Your task to perform on an android device: refresh tabs in the chrome app Image 0: 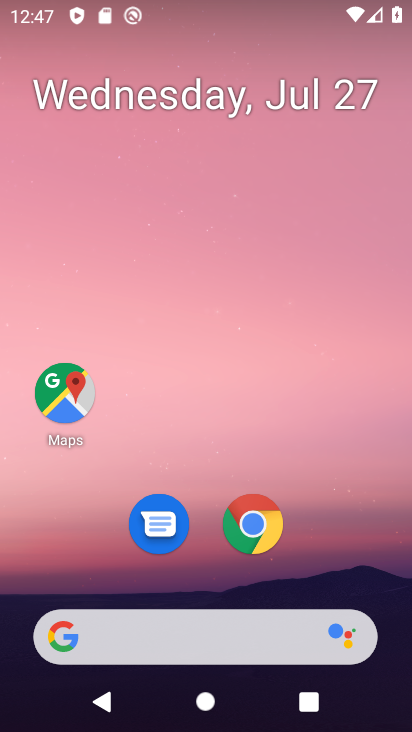
Step 0: click (258, 534)
Your task to perform on an android device: refresh tabs in the chrome app Image 1: 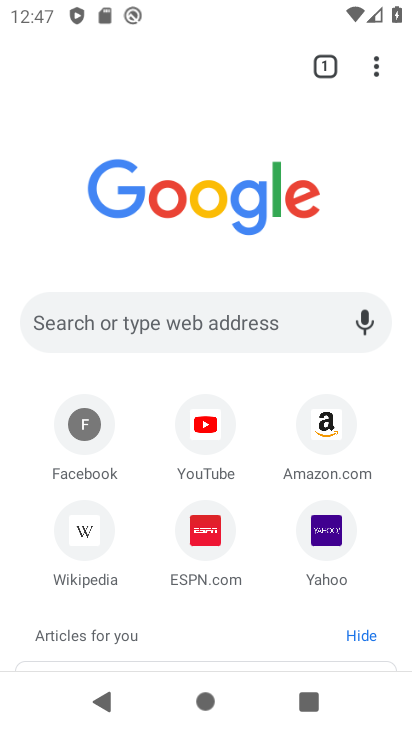
Step 1: click (374, 72)
Your task to perform on an android device: refresh tabs in the chrome app Image 2: 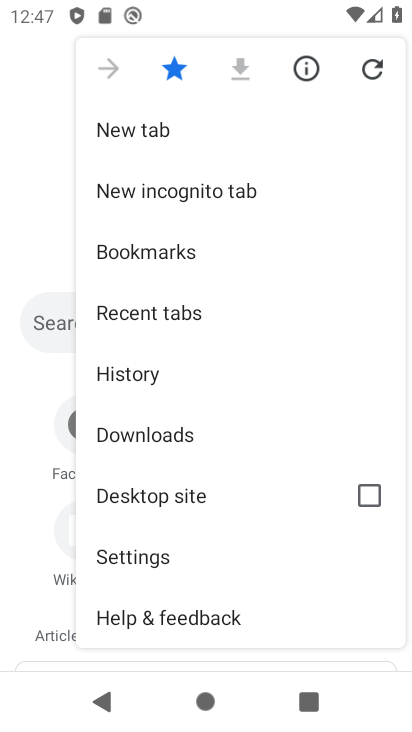
Step 2: click (374, 72)
Your task to perform on an android device: refresh tabs in the chrome app Image 3: 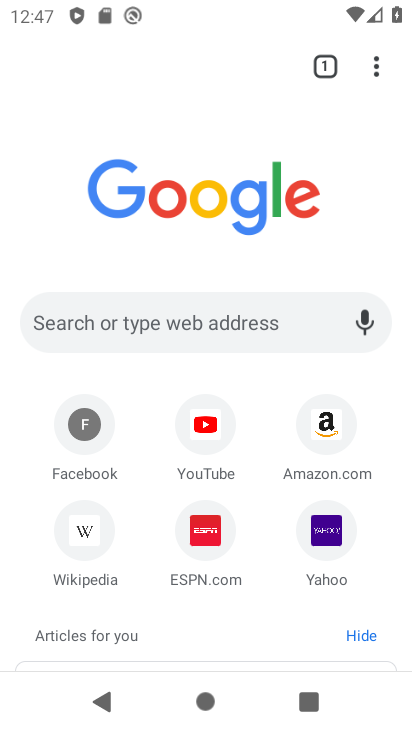
Step 3: task complete